Your task to perform on an android device: visit the assistant section in the google photos Image 0: 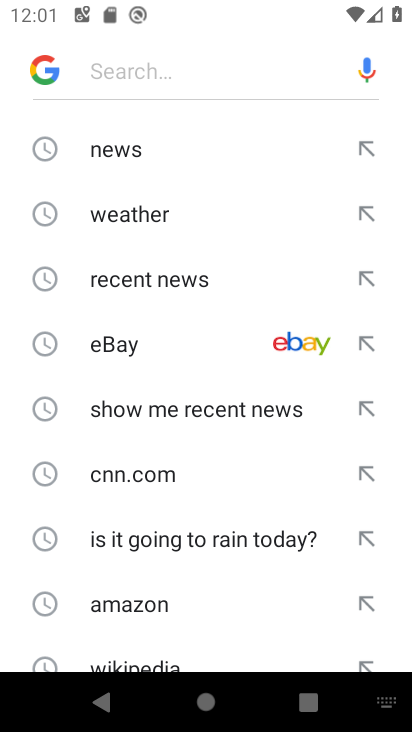
Step 0: press home button
Your task to perform on an android device: visit the assistant section in the google photos Image 1: 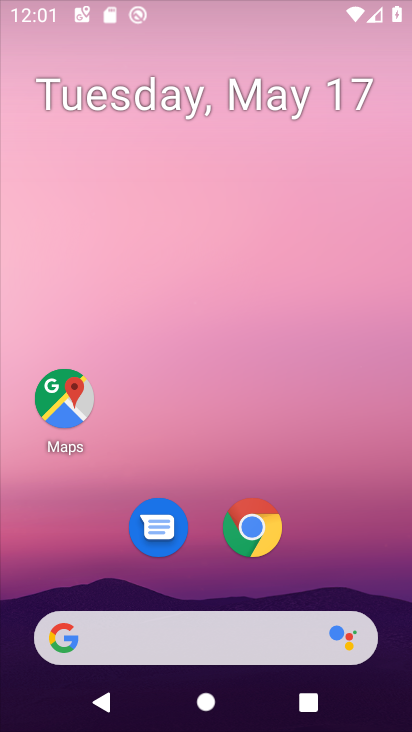
Step 1: drag from (269, 548) to (332, 163)
Your task to perform on an android device: visit the assistant section in the google photos Image 2: 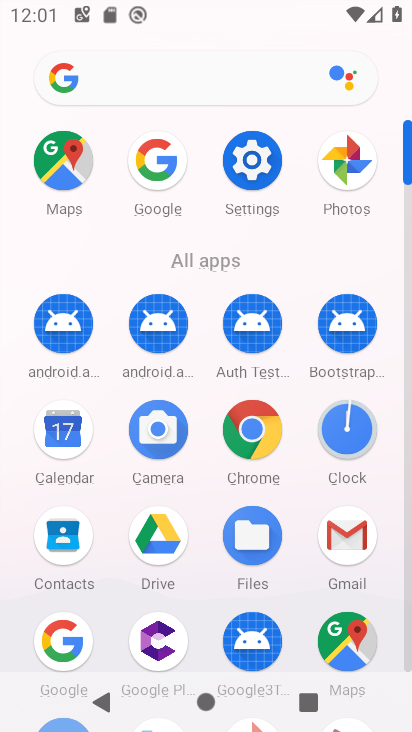
Step 2: click (364, 172)
Your task to perform on an android device: visit the assistant section in the google photos Image 3: 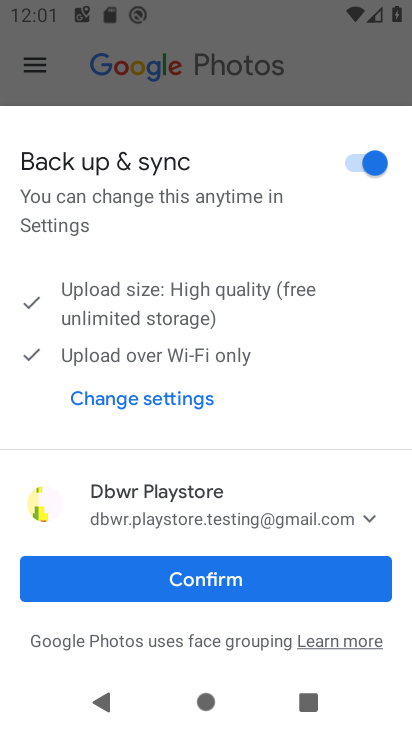
Step 3: click (284, 571)
Your task to perform on an android device: visit the assistant section in the google photos Image 4: 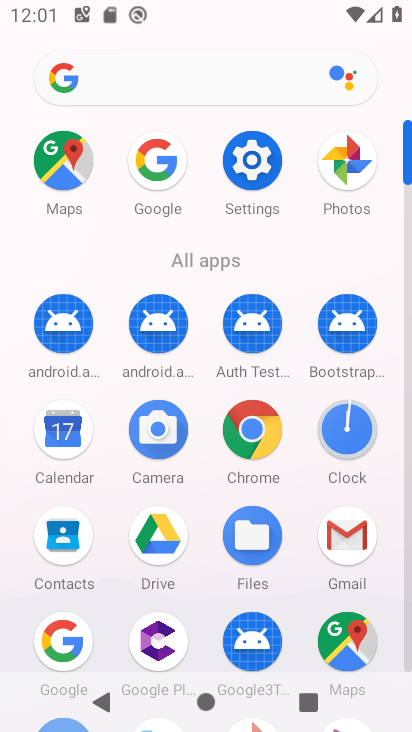
Step 4: click (333, 180)
Your task to perform on an android device: visit the assistant section in the google photos Image 5: 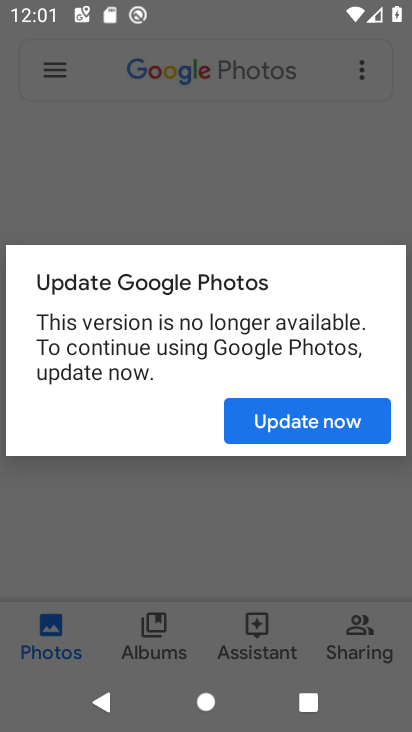
Step 5: click (270, 640)
Your task to perform on an android device: visit the assistant section in the google photos Image 6: 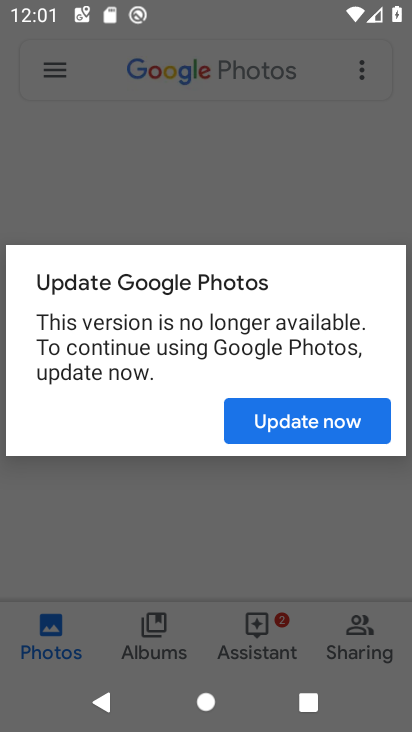
Step 6: click (318, 434)
Your task to perform on an android device: visit the assistant section in the google photos Image 7: 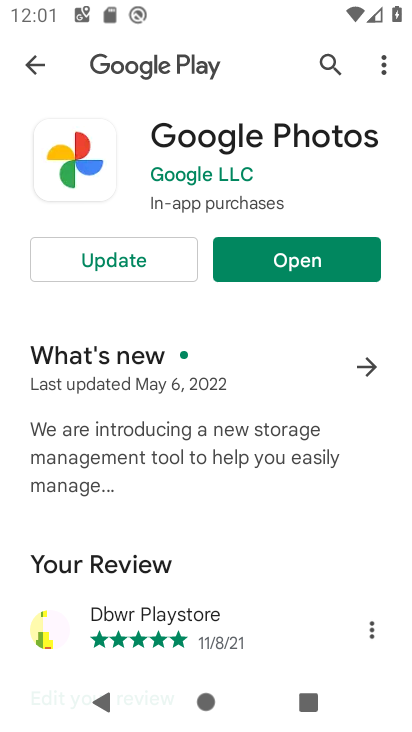
Step 7: click (183, 253)
Your task to perform on an android device: visit the assistant section in the google photos Image 8: 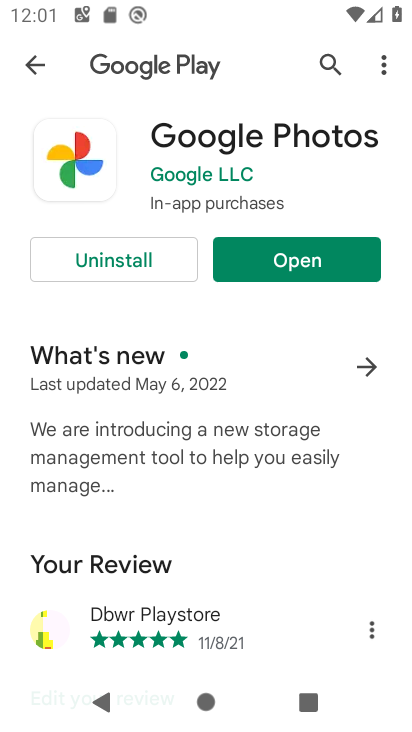
Step 8: click (280, 261)
Your task to perform on an android device: visit the assistant section in the google photos Image 9: 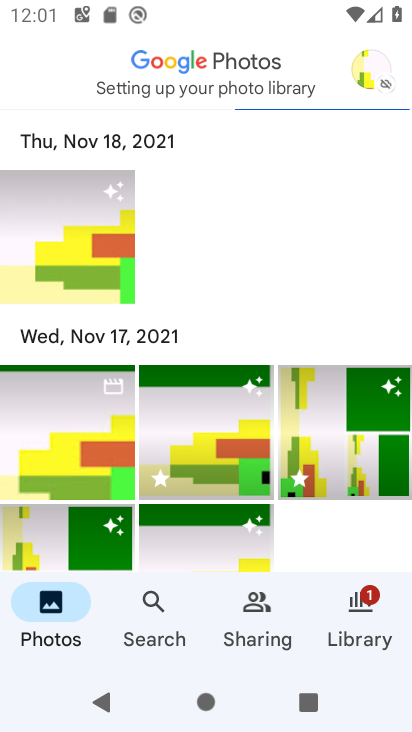
Step 9: click (153, 619)
Your task to perform on an android device: visit the assistant section in the google photos Image 10: 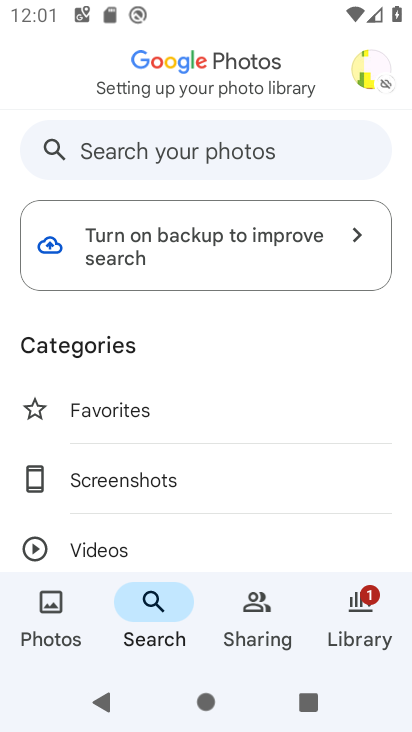
Step 10: click (185, 146)
Your task to perform on an android device: visit the assistant section in the google photos Image 11: 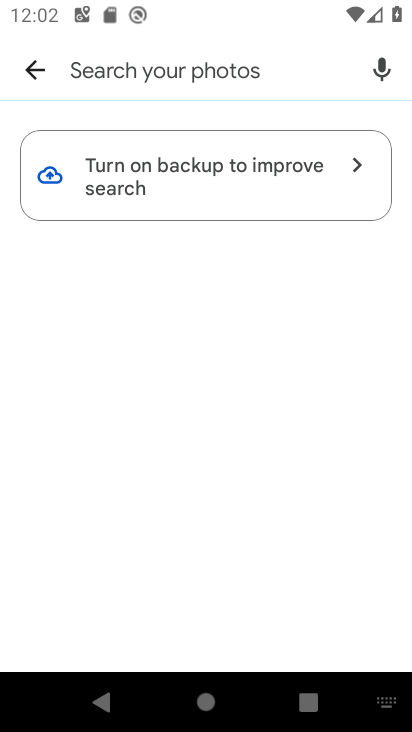
Step 11: type "assistance"
Your task to perform on an android device: visit the assistant section in the google photos Image 12: 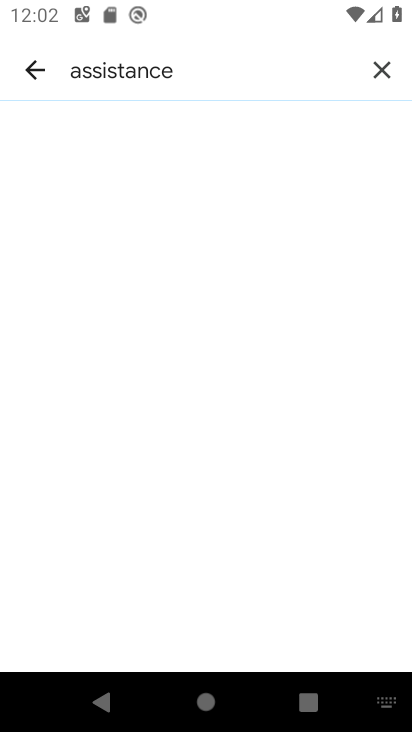
Step 12: type " section"
Your task to perform on an android device: visit the assistant section in the google photos Image 13: 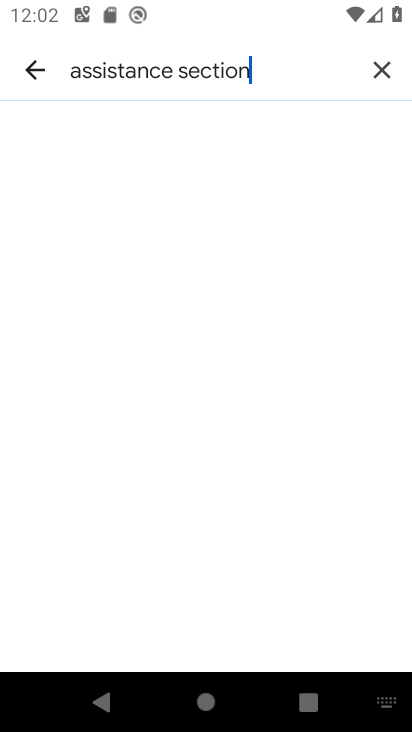
Step 13: task complete